Your task to perform on an android device: toggle show notifications on the lock screen Image 0: 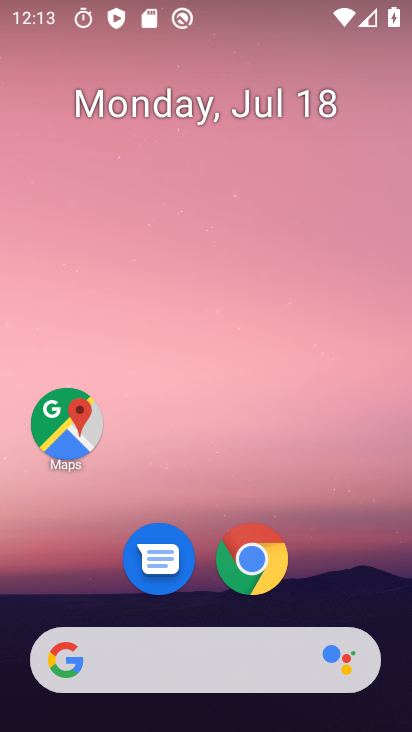
Step 0: drag from (81, 575) to (176, 16)
Your task to perform on an android device: toggle show notifications on the lock screen Image 1: 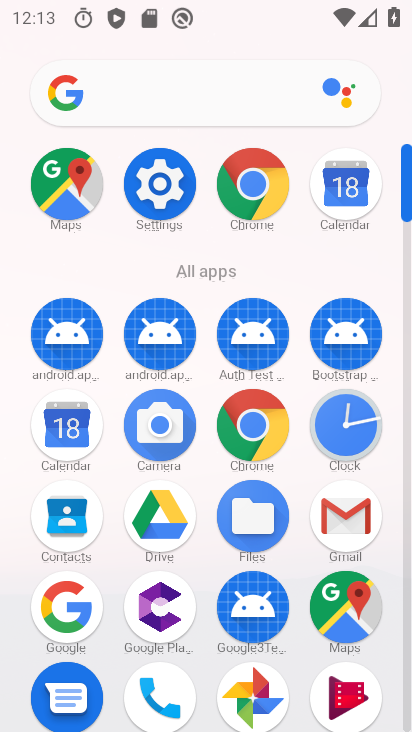
Step 1: click (168, 191)
Your task to perform on an android device: toggle show notifications on the lock screen Image 2: 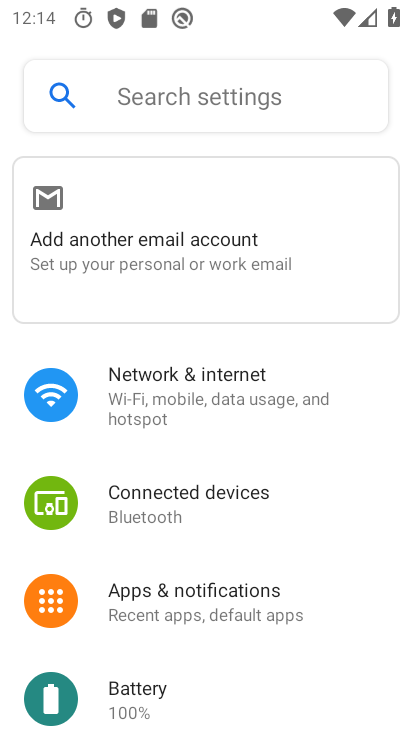
Step 2: click (190, 591)
Your task to perform on an android device: toggle show notifications on the lock screen Image 3: 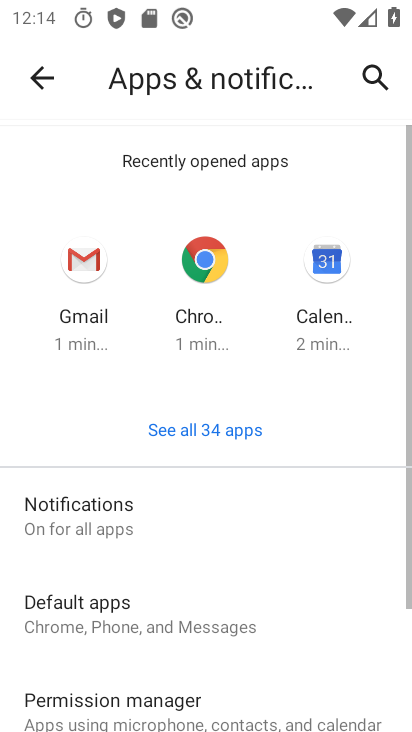
Step 3: click (133, 476)
Your task to perform on an android device: toggle show notifications on the lock screen Image 4: 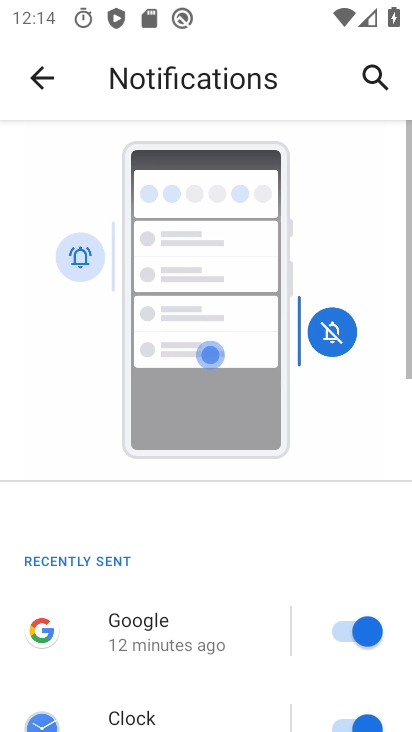
Step 4: drag from (137, 629) to (271, 48)
Your task to perform on an android device: toggle show notifications on the lock screen Image 5: 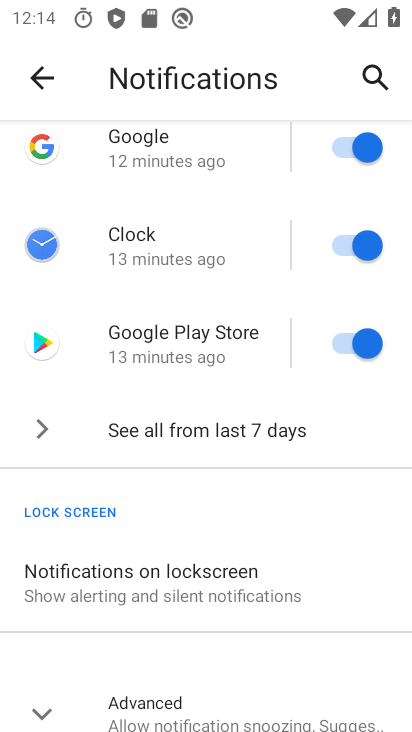
Step 5: click (162, 579)
Your task to perform on an android device: toggle show notifications on the lock screen Image 6: 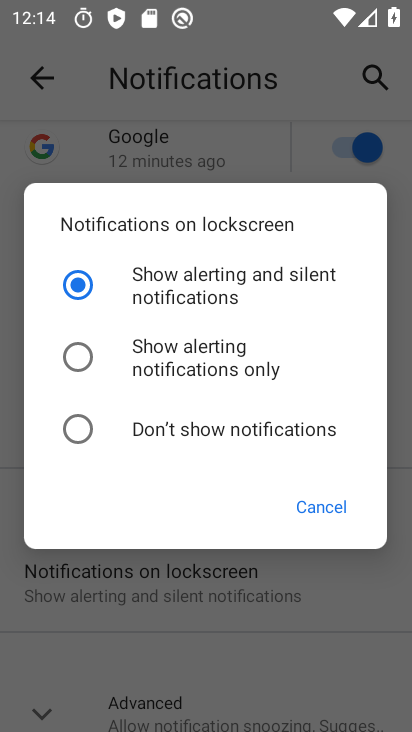
Step 6: click (68, 282)
Your task to perform on an android device: toggle show notifications on the lock screen Image 7: 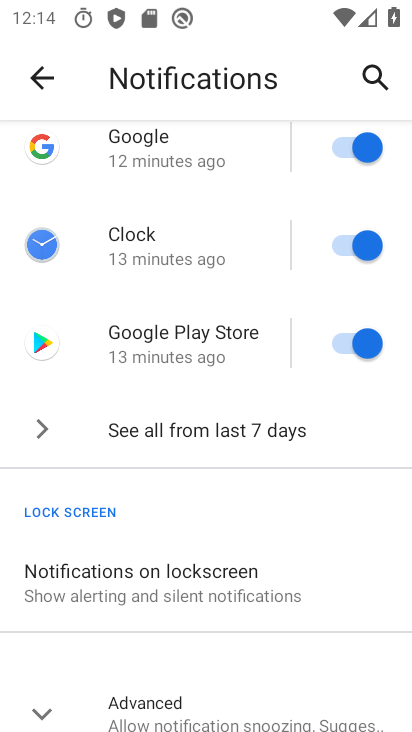
Step 7: task complete